Your task to perform on an android device: find photos in the google photos app Image 0: 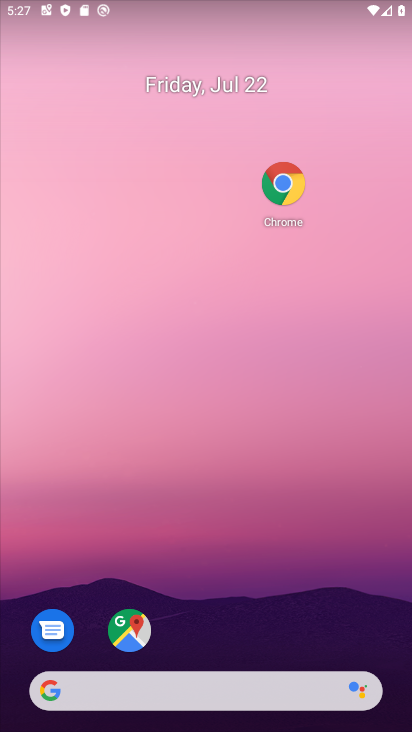
Step 0: drag from (243, 596) to (263, 276)
Your task to perform on an android device: find photos in the google photos app Image 1: 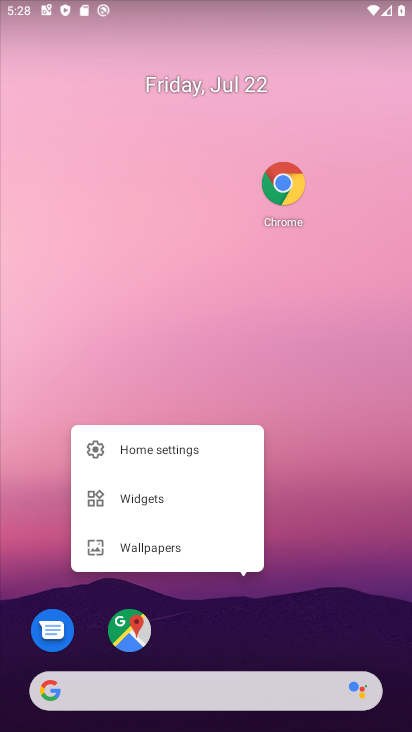
Step 1: click (217, 620)
Your task to perform on an android device: find photos in the google photos app Image 2: 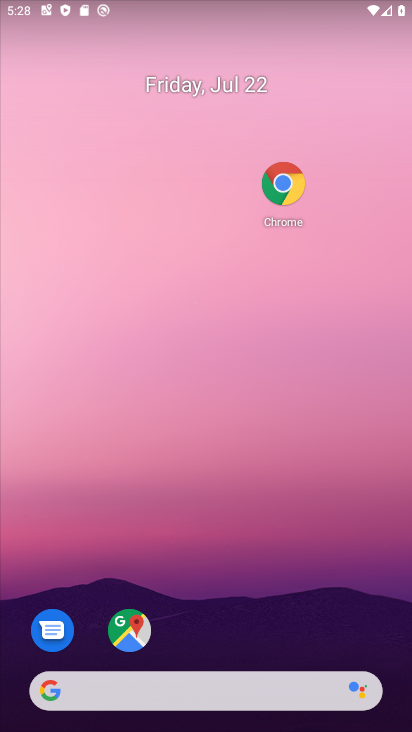
Step 2: drag from (192, 637) to (215, 67)
Your task to perform on an android device: find photos in the google photos app Image 3: 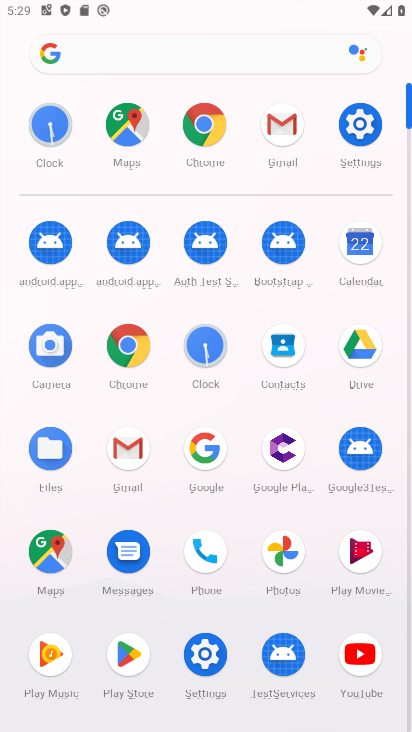
Step 3: click (289, 556)
Your task to perform on an android device: find photos in the google photos app Image 4: 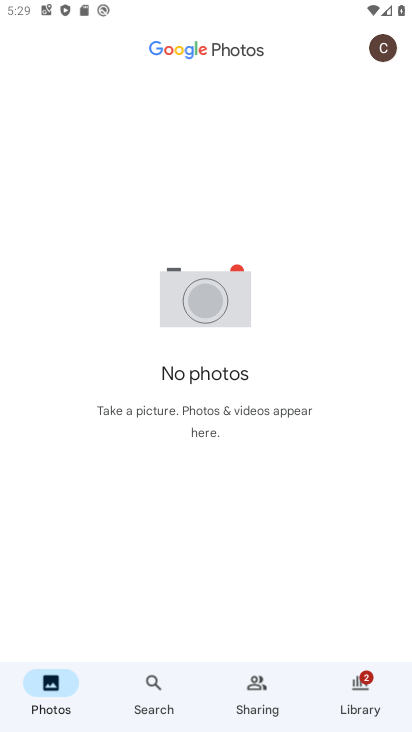
Step 4: task complete